Your task to perform on an android device: Open Google Image 0: 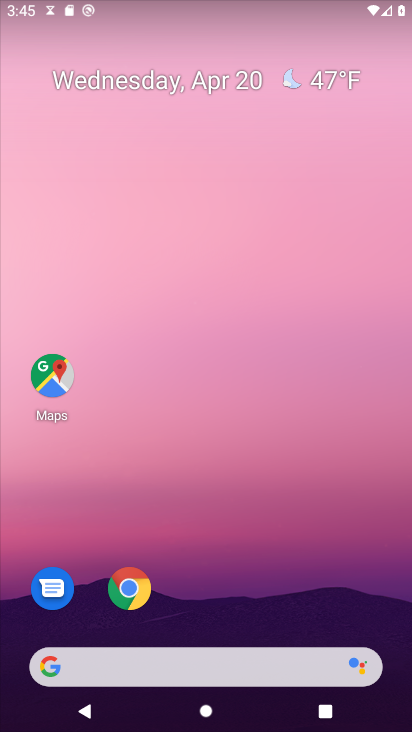
Step 0: drag from (223, 602) to (229, 6)
Your task to perform on an android device: Open Google Image 1: 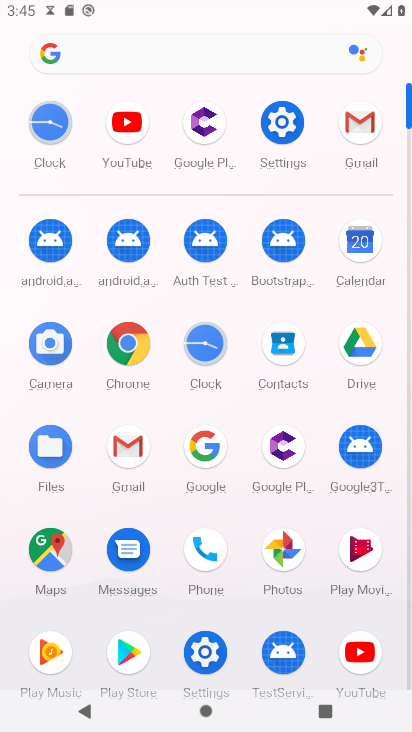
Step 1: click (212, 457)
Your task to perform on an android device: Open Google Image 2: 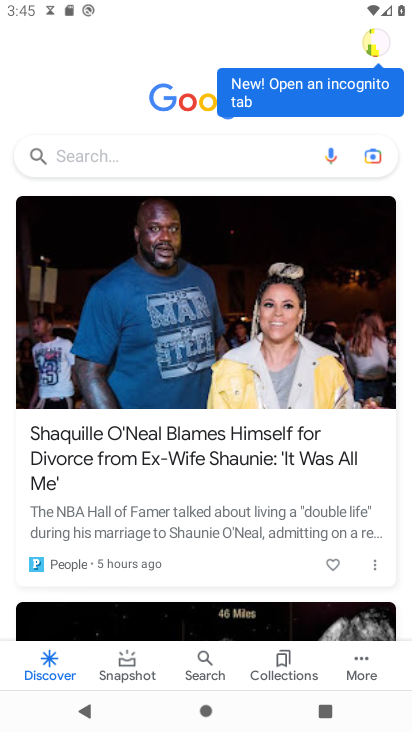
Step 2: task complete